Your task to perform on an android device: Open Chrome and go to the settings page Image 0: 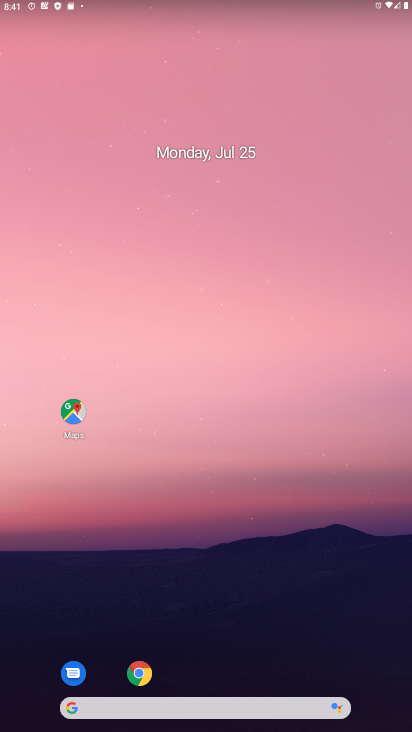
Step 0: drag from (212, 316) to (129, 63)
Your task to perform on an android device: Open Chrome and go to the settings page Image 1: 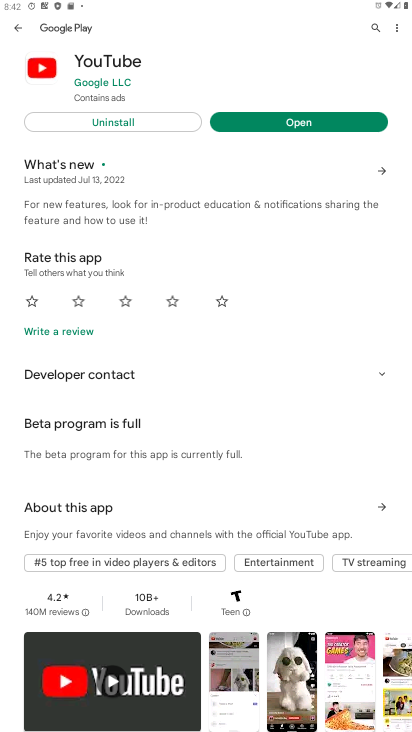
Step 1: press home button
Your task to perform on an android device: Open Chrome and go to the settings page Image 2: 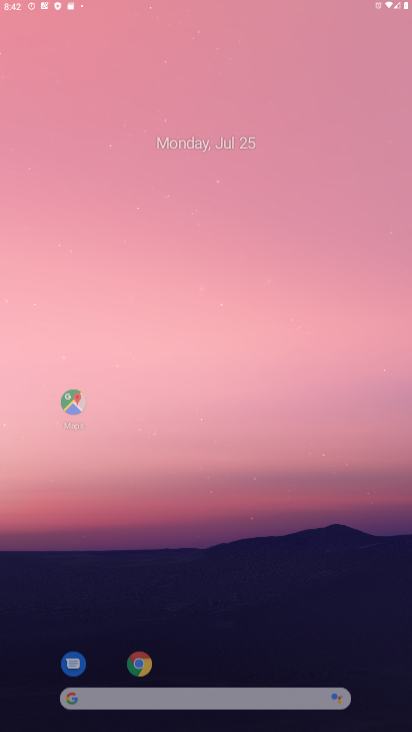
Step 2: drag from (368, 718) to (5, 291)
Your task to perform on an android device: Open Chrome and go to the settings page Image 3: 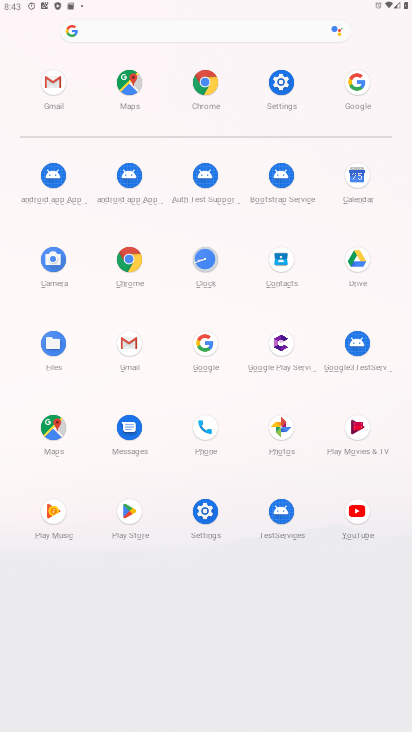
Step 3: click (134, 267)
Your task to perform on an android device: Open Chrome and go to the settings page Image 4: 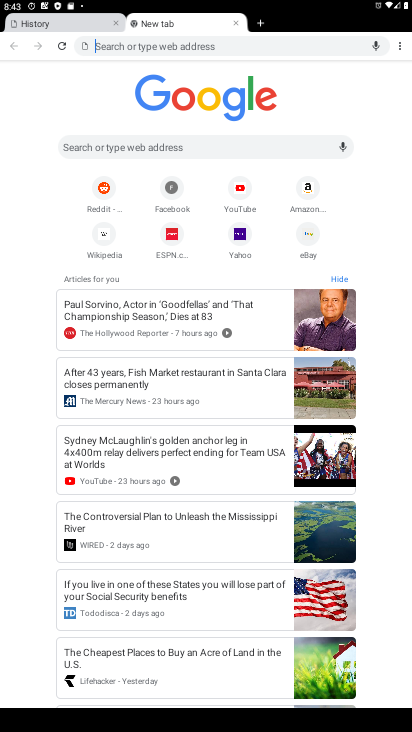
Step 4: click (395, 46)
Your task to perform on an android device: Open Chrome and go to the settings page Image 5: 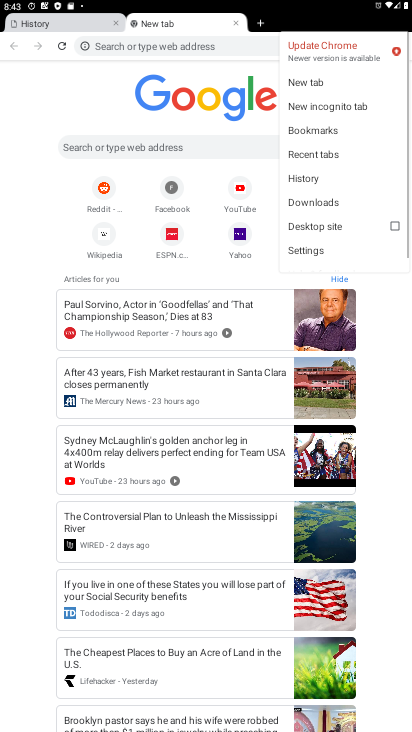
Step 5: click (298, 251)
Your task to perform on an android device: Open Chrome and go to the settings page Image 6: 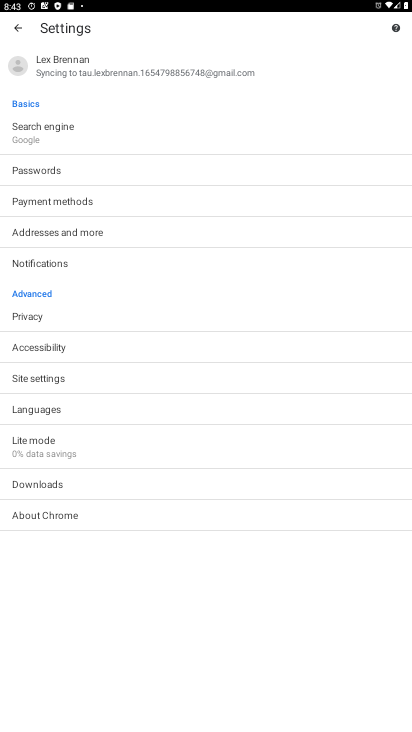
Step 6: task complete